Your task to perform on an android device: turn on bluetooth scan Image 0: 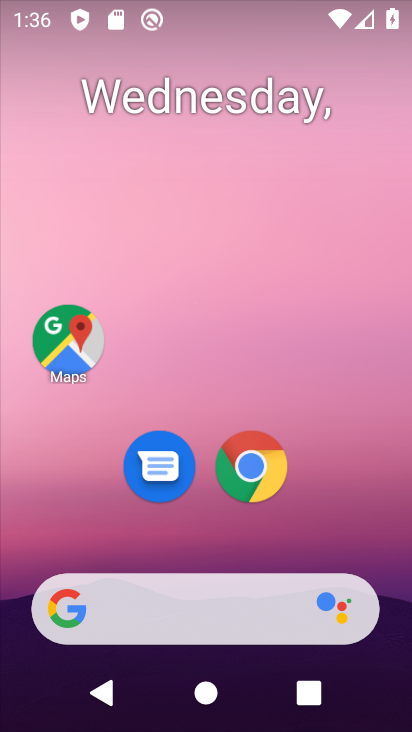
Step 0: drag from (321, 519) to (285, 49)
Your task to perform on an android device: turn on bluetooth scan Image 1: 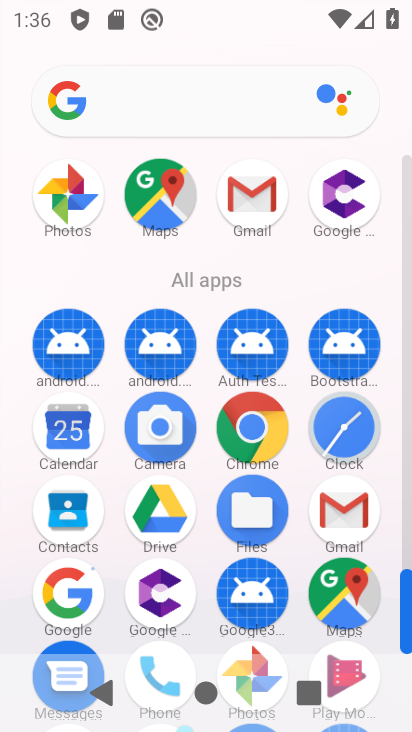
Step 1: drag from (16, 540) to (14, 203)
Your task to perform on an android device: turn on bluetooth scan Image 2: 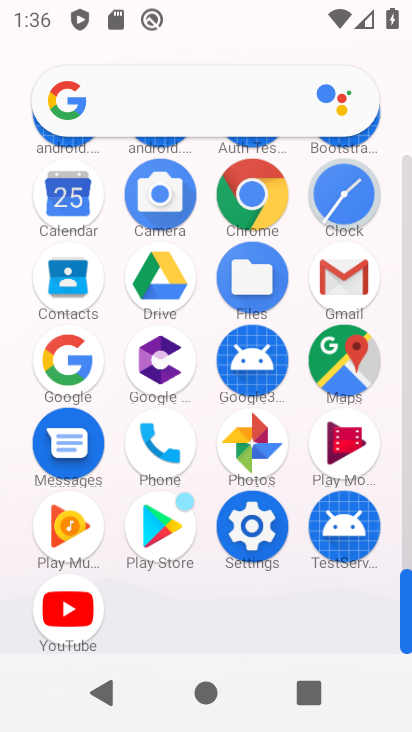
Step 2: click (250, 520)
Your task to perform on an android device: turn on bluetooth scan Image 3: 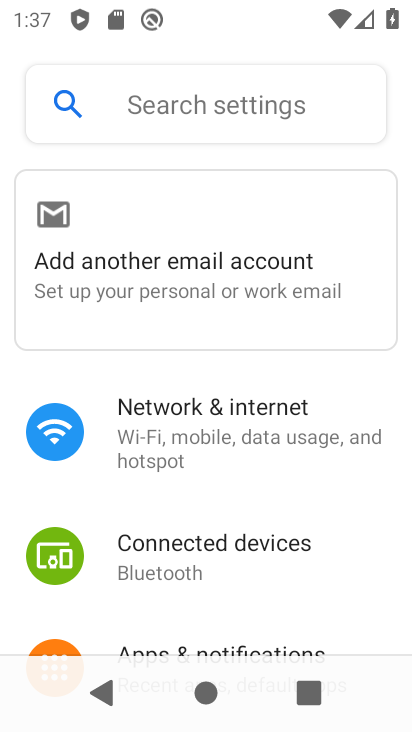
Step 3: drag from (296, 567) to (289, 136)
Your task to perform on an android device: turn on bluetooth scan Image 4: 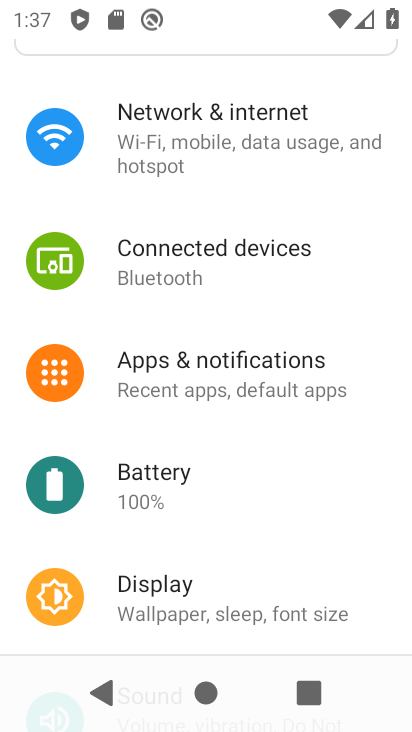
Step 4: drag from (292, 508) to (293, 176)
Your task to perform on an android device: turn on bluetooth scan Image 5: 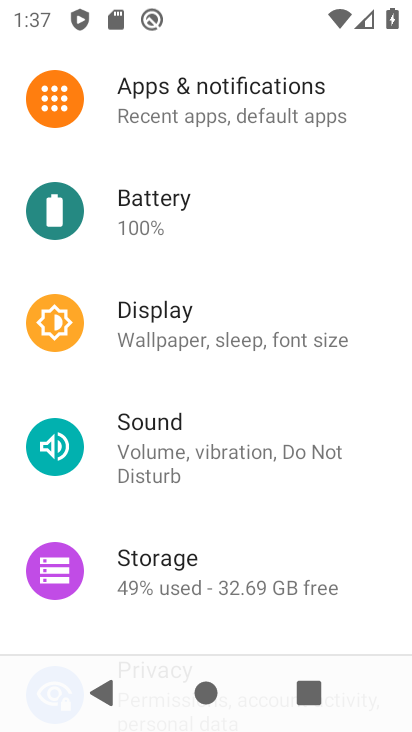
Step 5: drag from (265, 531) to (268, 135)
Your task to perform on an android device: turn on bluetooth scan Image 6: 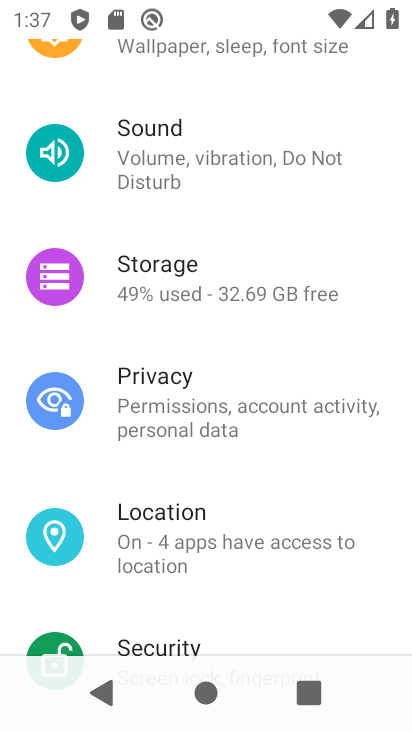
Step 6: click (214, 520)
Your task to perform on an android device: turn on bluetooth scan Image 7: 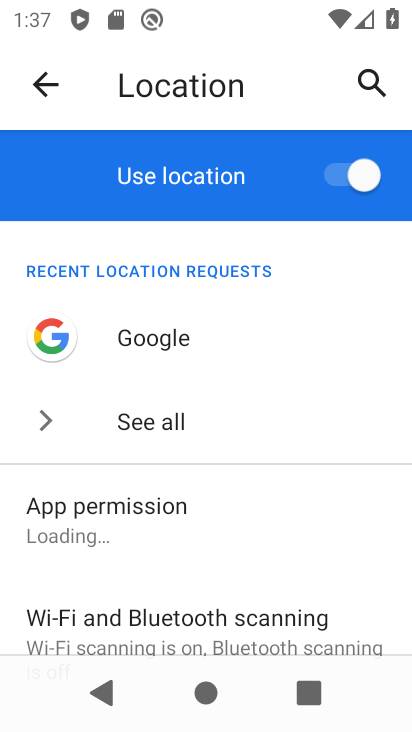
Step 7: drag from (213, 520) to (241, 152)
Your task to perform on an android device: turn on bluetooth scan Image 8: 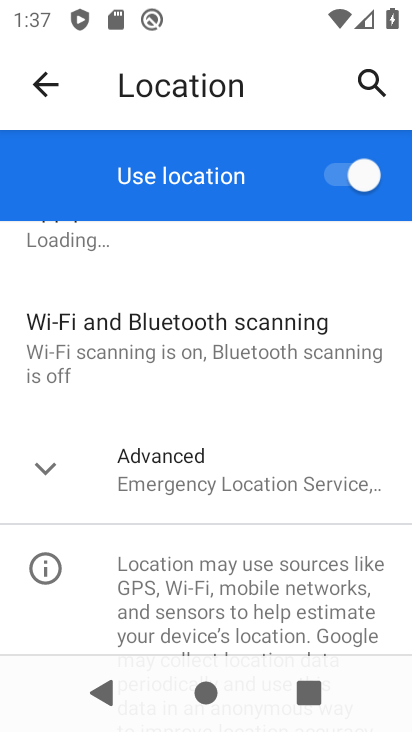
Step 8: click (46, 446)
Your task to perform on an android device: turn on bluetooth scan Image 9: 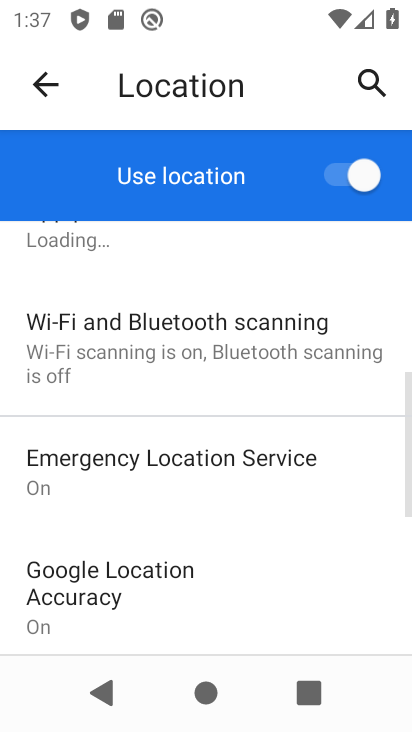
Step 9: drag from (240, 621) to (240, 240)
Your task to perform on an android device: turn on bluetooth scan Image 10: 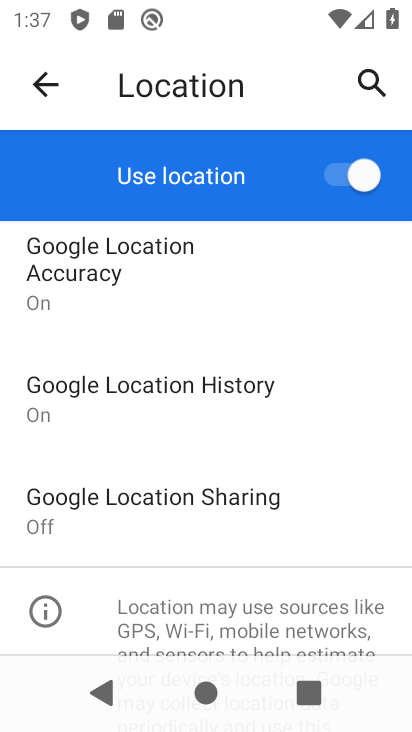
Step 10: drag from (267, 630) to (251, 217)
Your task to perform on an android device: turn on bluetooth scan Image 11: 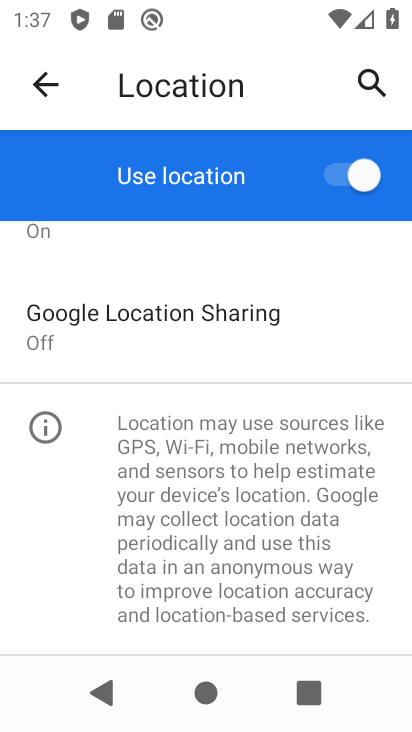
Step 11: drag from (225, 571) to (224, 213)
Your task to perform on an android device: turn on bluetooth scan Image 12: 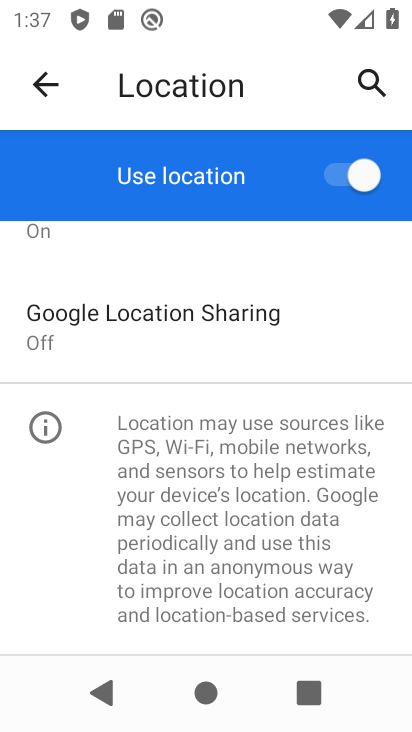
Step 12: drag from (217, 624) to (223, 273)
Your task to perform on an android device: turn on bluetooth scan Image 13: 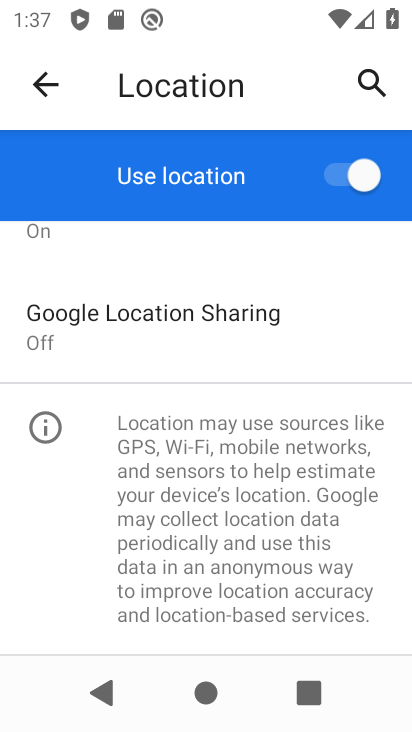
Step 13: drag from (244, 336) to (269, 560)
Your task to perform on an android device: turn on bluetooth scan Image 14: 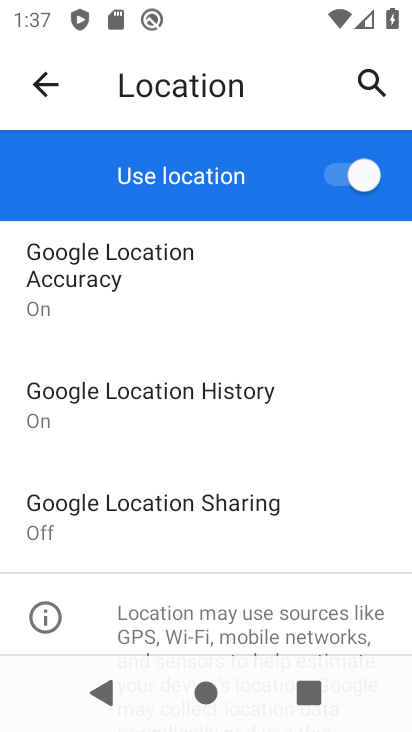
Step 14: drag from (241, 316) to (288, 576)
Your task to perform on an android device: turn on bluetooth scan Image 15: 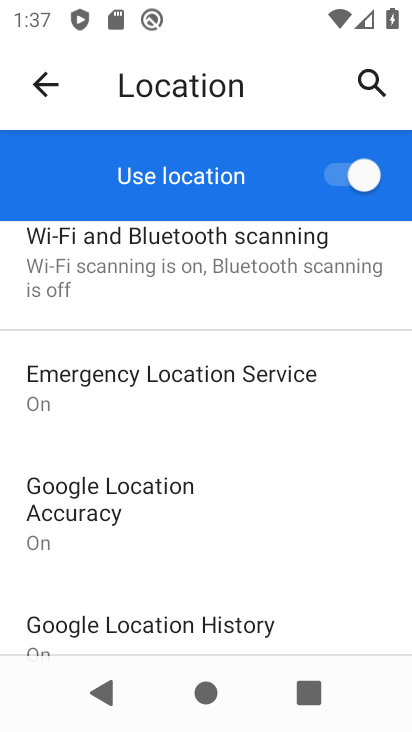
Step 15: drag from (300, 303) to (295, 478)
Your task to perform on an android device: turn on bluetooth scan Image 16: 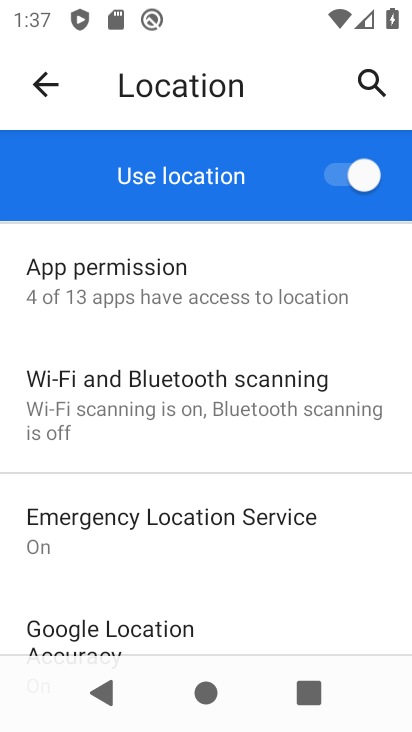
Step 16: click (219, 407)
Your task to perform on an android device: turn on bluetooth scan Image 17: 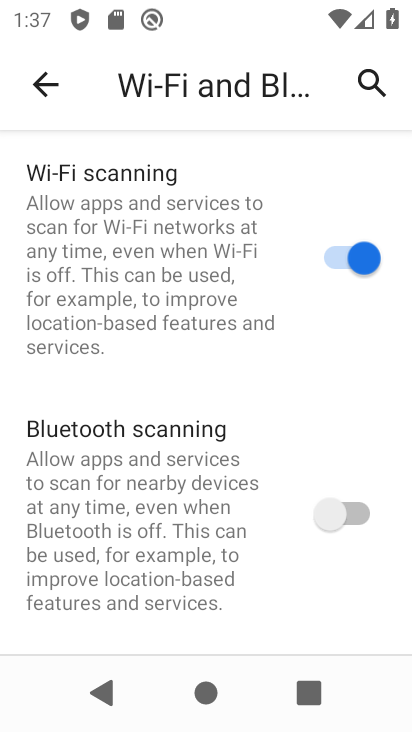
Step 17: click (349, 516)
Your task to perform on an android device: turn on bluetooth scan Image 18: 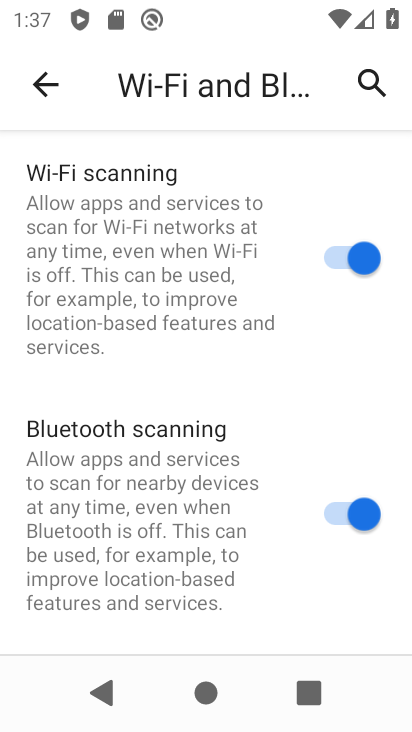
Step 18: task complete